Your task to perform on an android device: Search for the best rated circular saw on Lowes.com Image 0: 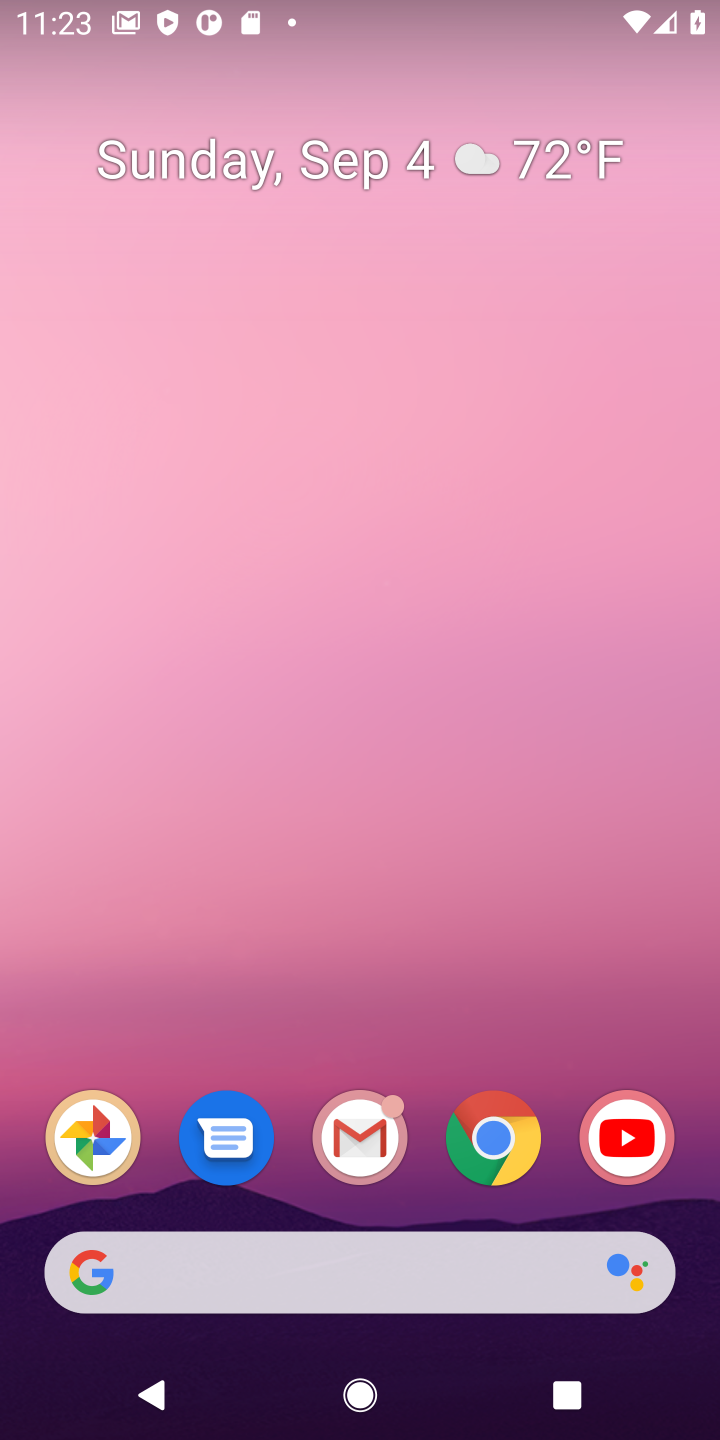
Step 0: click (471, 1117)
Your task to perform on an android device: Search for the best rated circular saw on Lowes.com Image 1: 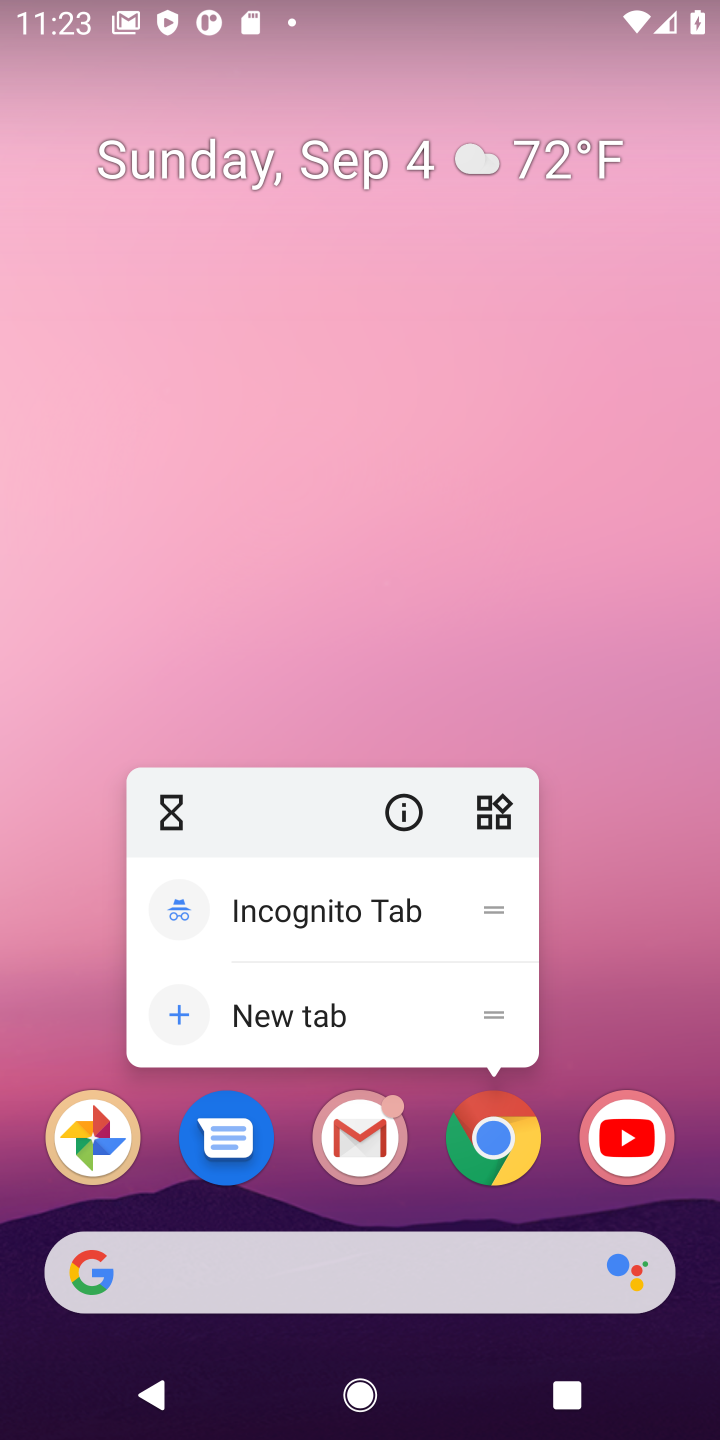
Step 1: click (518, 1120)
Your task to perform on an android device: Search for the best rated circular saw on Lowes.com Image 2: 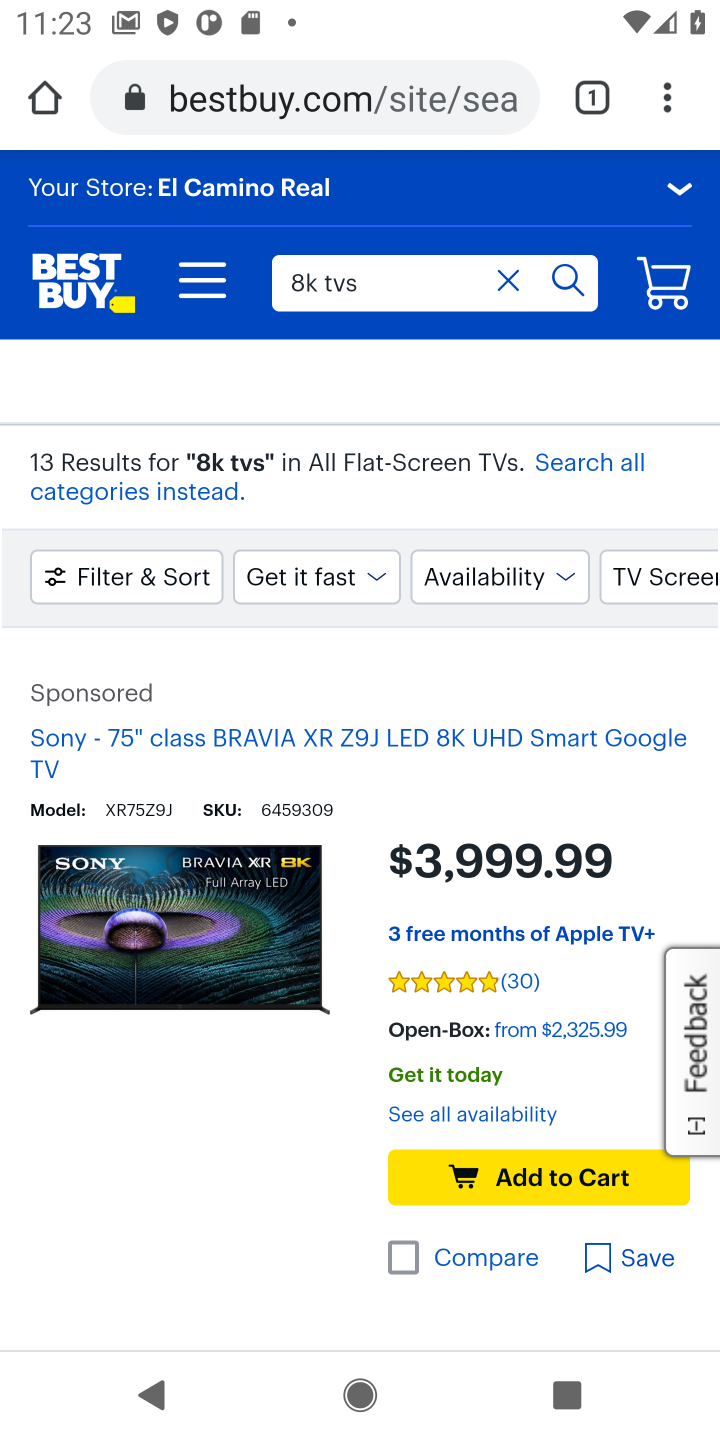
Step 2: click (314, 116)
Your task to perform on an android device: Search for the best rated circular saw on Lowes.com Image 3: 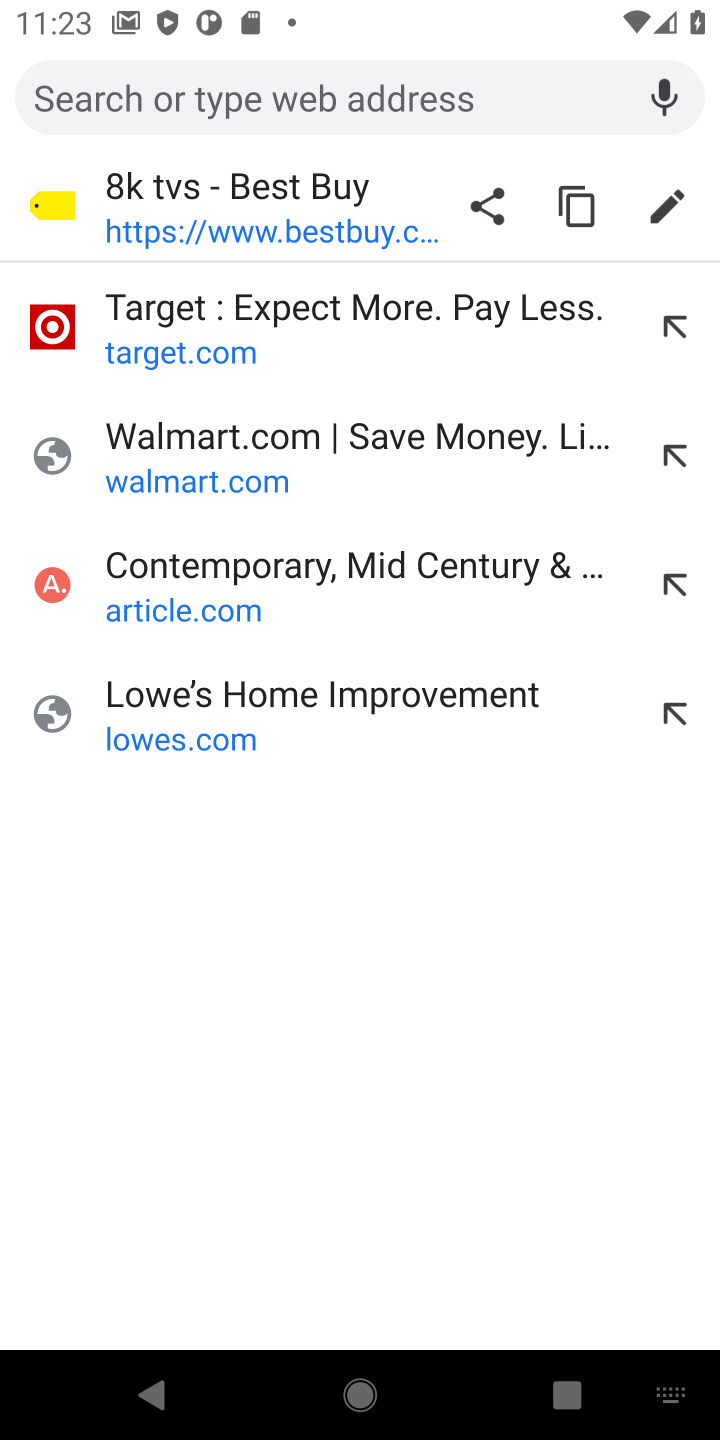
Step 3: type "lowes.com"
Your task to perform on an android device: Search for the best rated circular saw on Lowes.com Image 4: 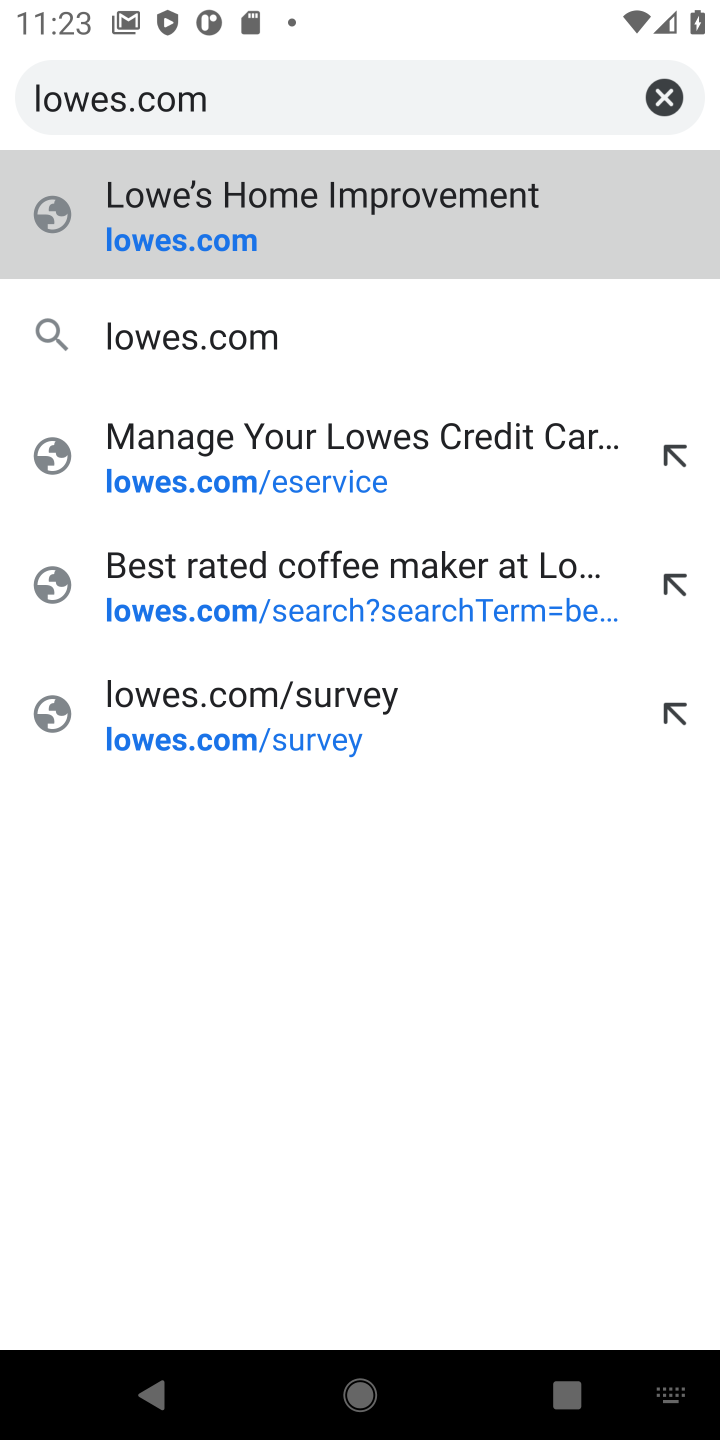
Step 4: click (300, 229)
Your task to perform on an android device: Search for the best rated circular saw on Lowes.com Image 5: 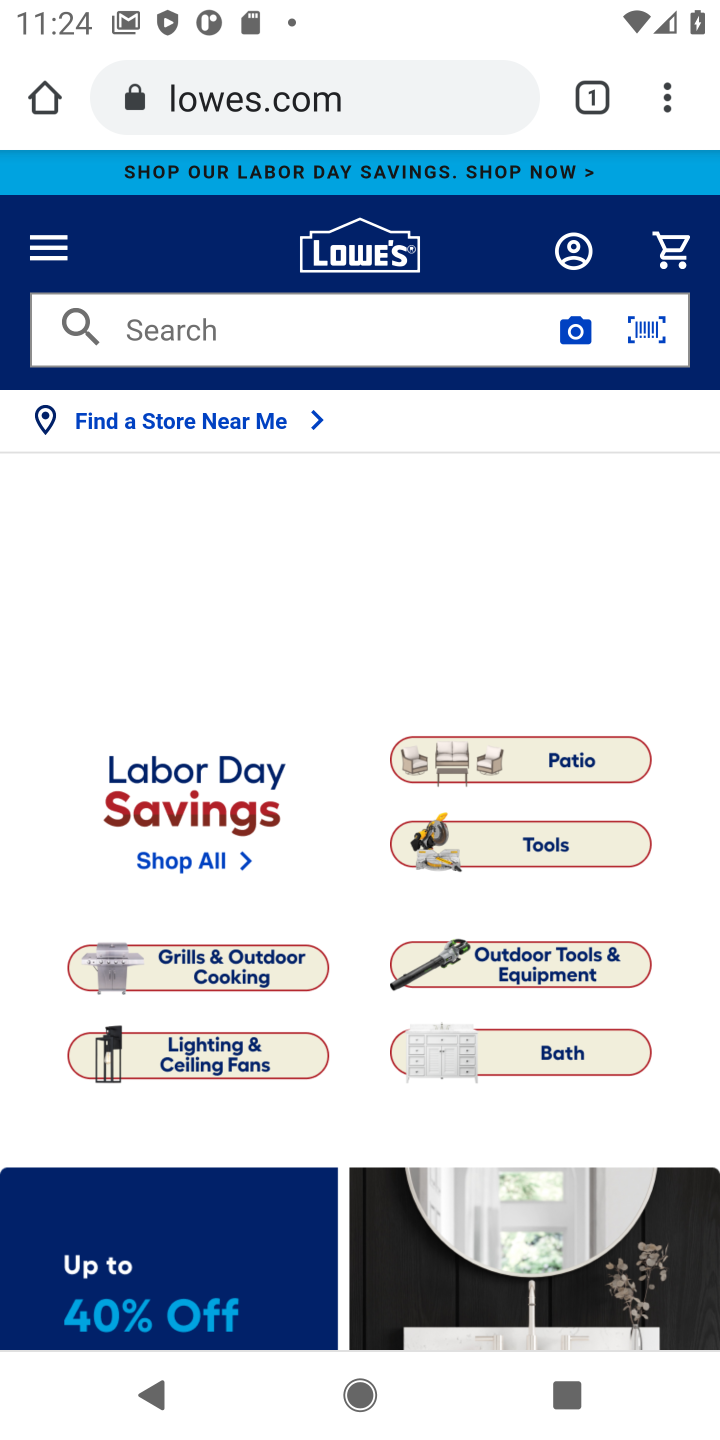
Step 5: click (437, 294)
Your task to perform on an android device: Search for the best rated circular saw on Lowes.com Image 6: 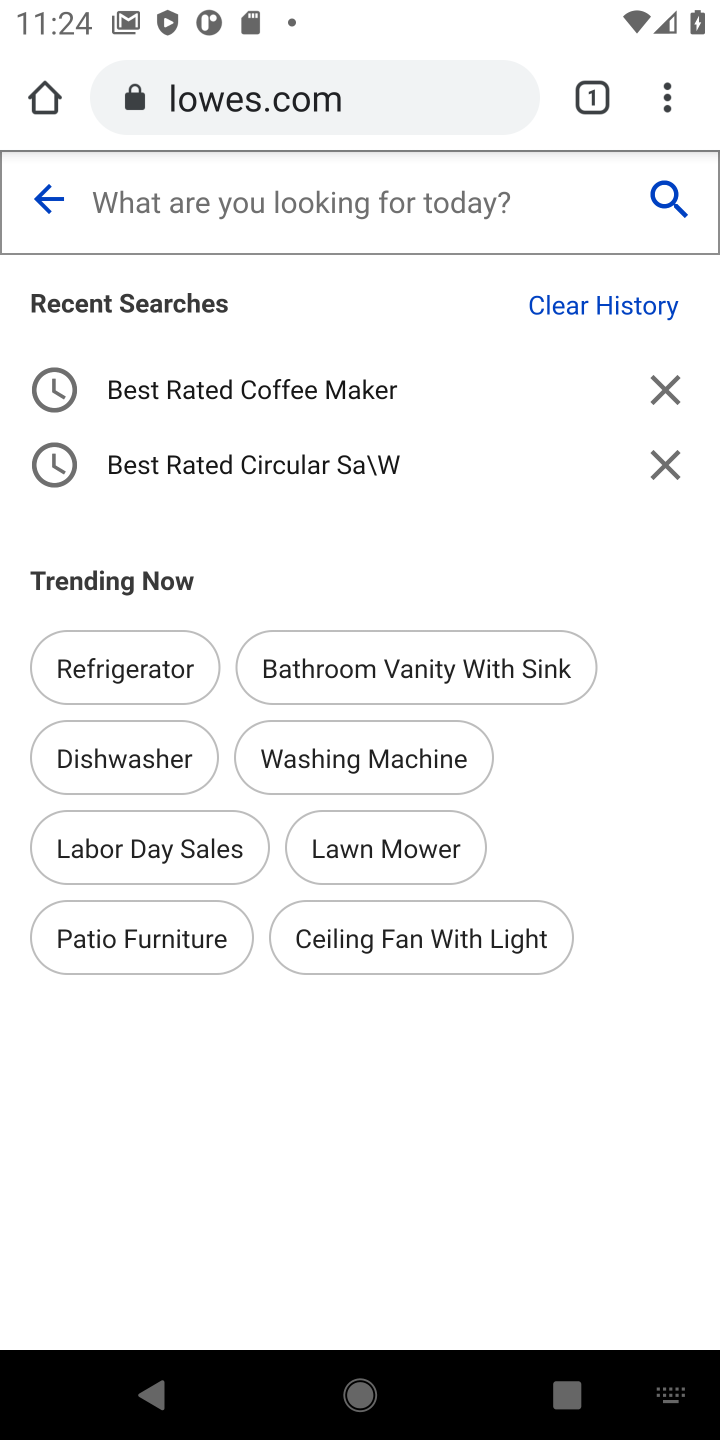
Step 6: type "best rated circul;ar saw"
Your task to perform on an android device: Search for the best rated circular saw on Lowes.com Image 7: 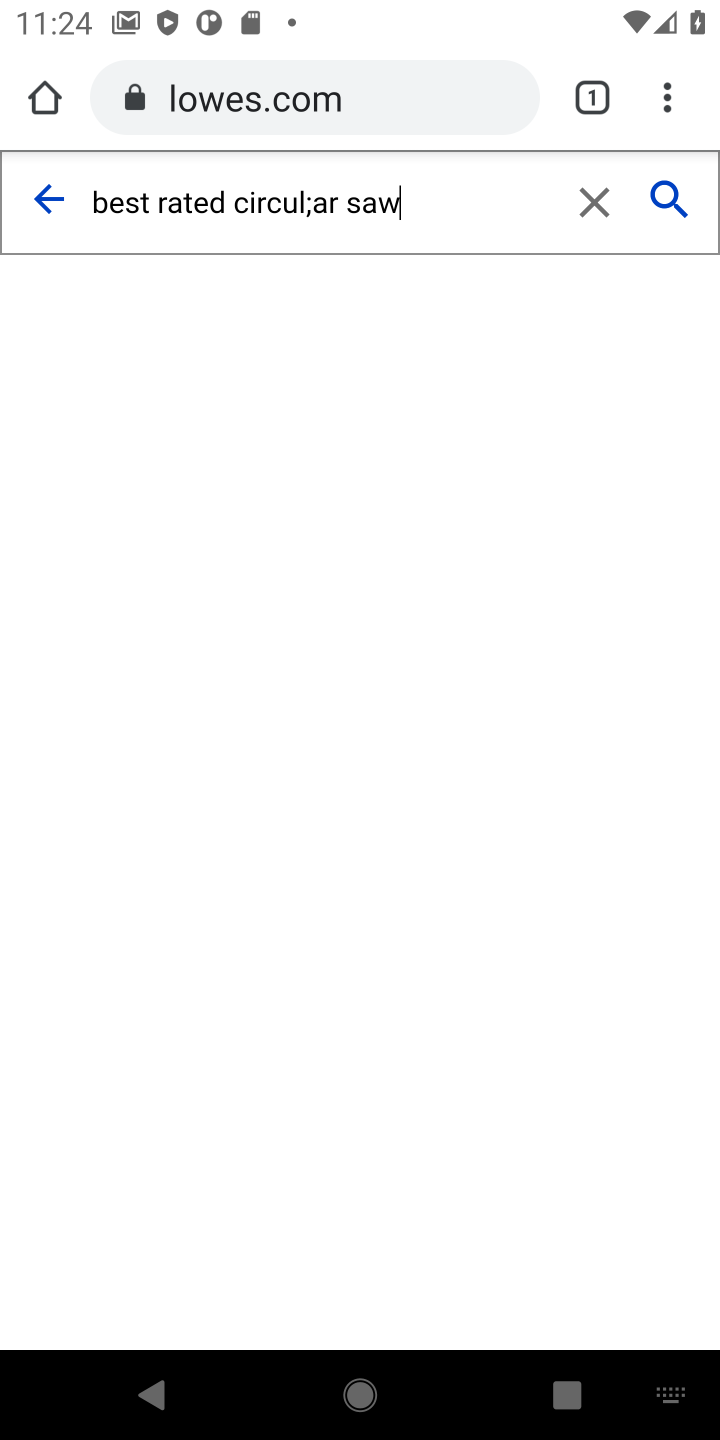
Step 7: press enter
Your task to perform on an android device: Search for the best rated circular saw on Lowes.com Image 8: 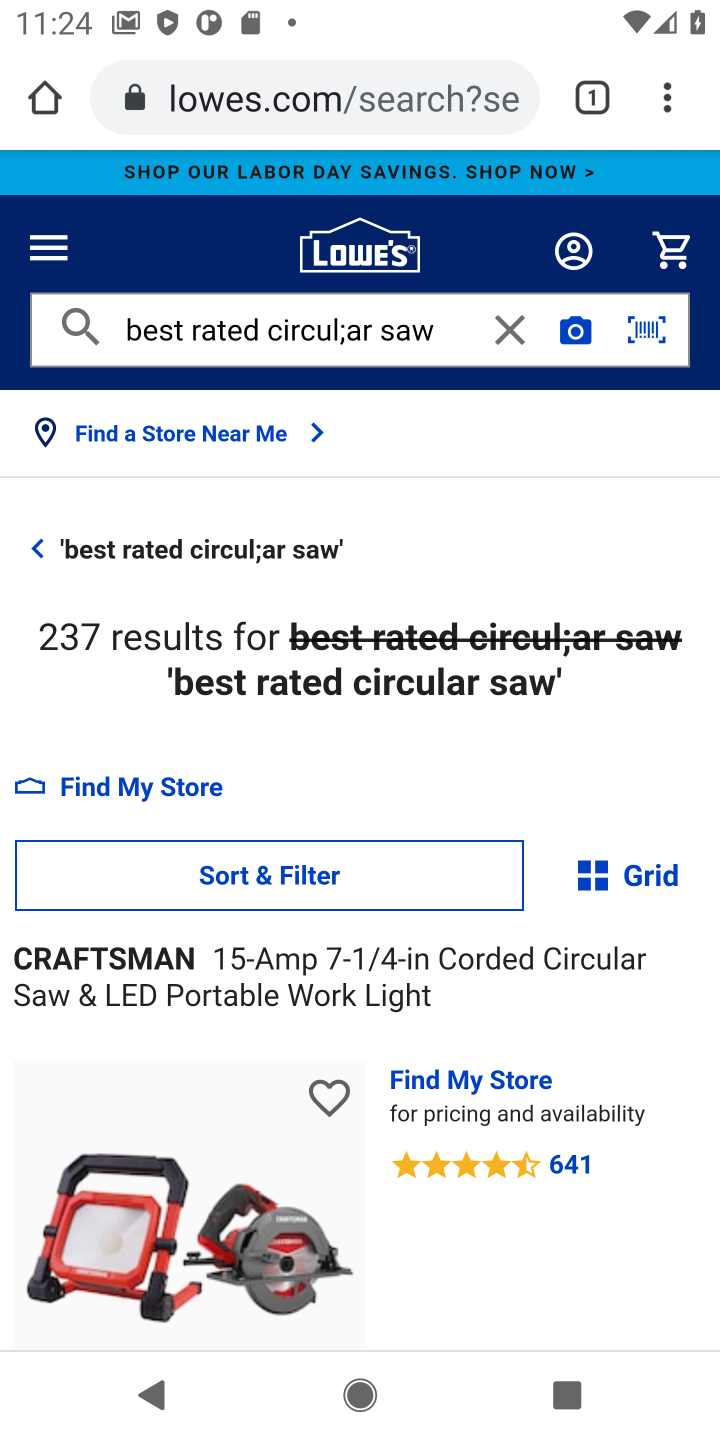
Step 8: task complete